Your task to perform on an android device: toggle sleep mode Image 0: 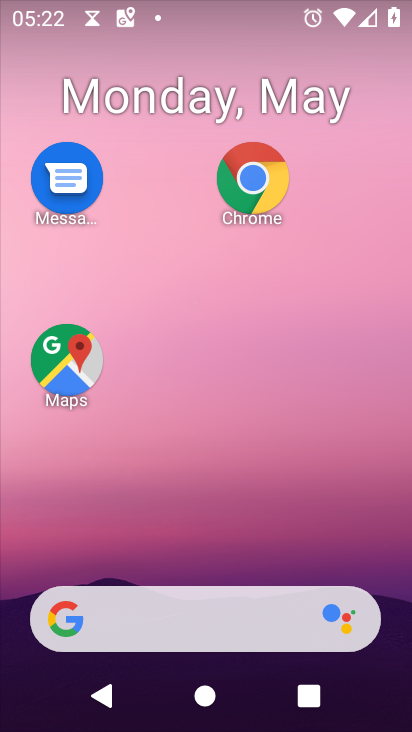
Step 0: drag from (221, 554) to (161, 22)
Your task to perform on an android device: toggle sleep mode Image 1: 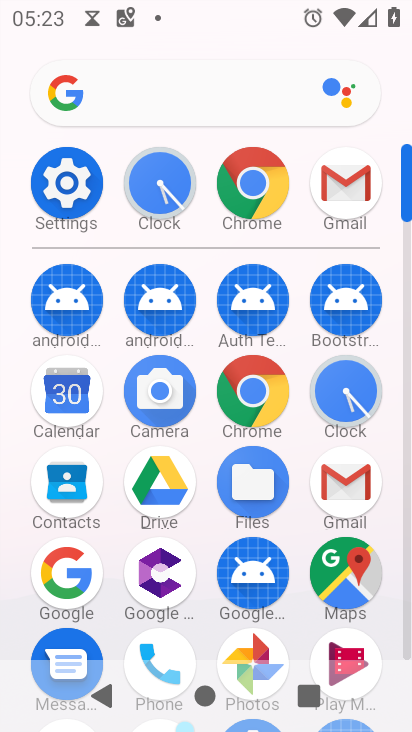
Step 1: click (63, 183)
Your task to perform on an android device: toggle sleep mode Image 2: 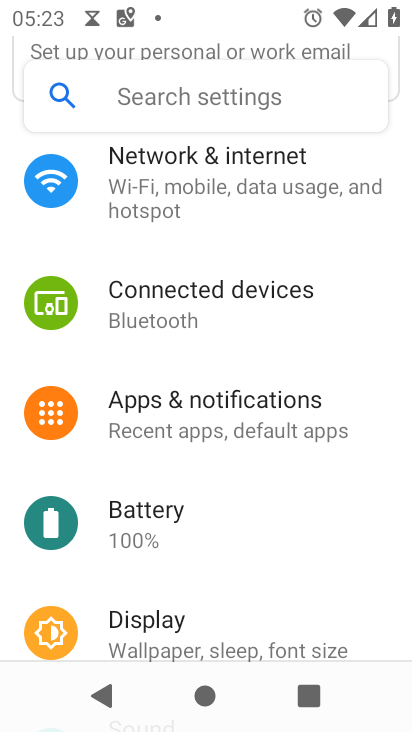
Step 2: task complete